Your task to perform on an android device: turn off notifications in google photos Image 0: 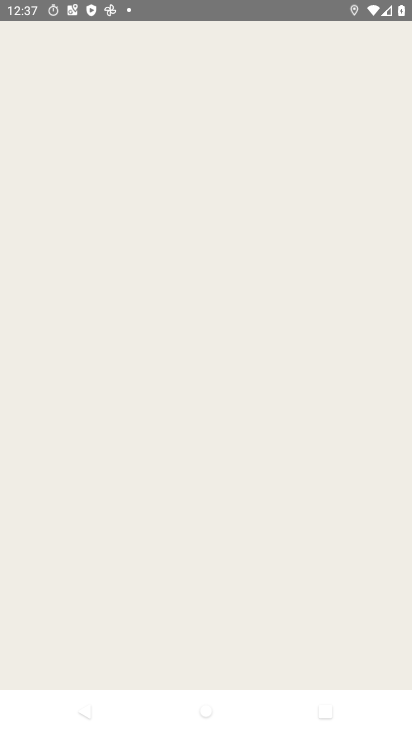
Step 0: press home button
Your task to perform on an android device: turn off notifications in google photos Image 1: 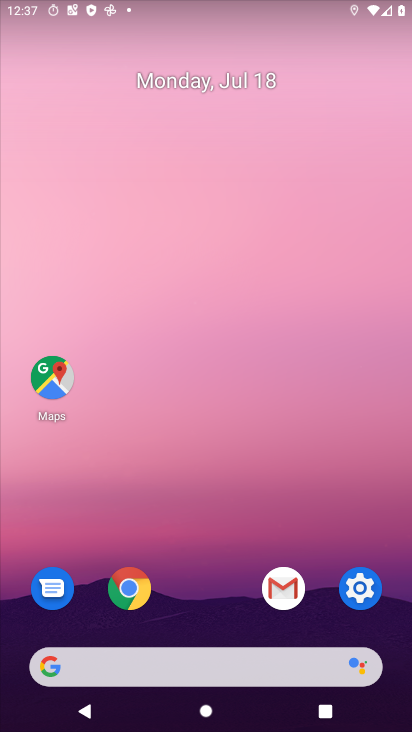
Step 1: drag from (268, 686) to (246, 148)
Your task to perform on an android device: turn off notifications in google photos Image 2: 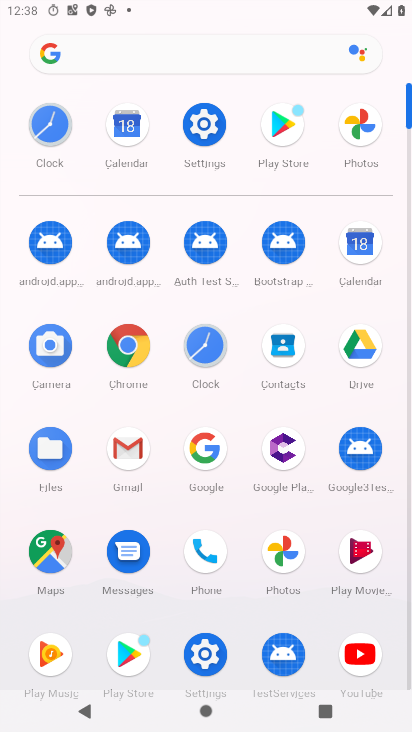
Step 2: click (277, 556)
Your task to perform on an android device: turn off notifications in google photos Image 3: 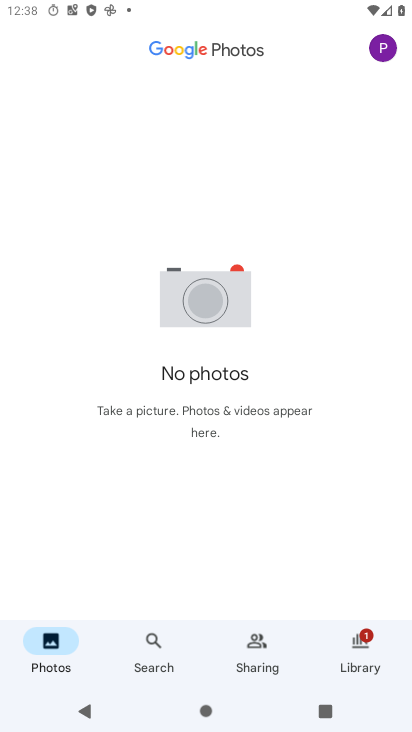
Step 3: click (382, 51)
Your task to perform on an android device: turn off notifications in google photos Image 4: 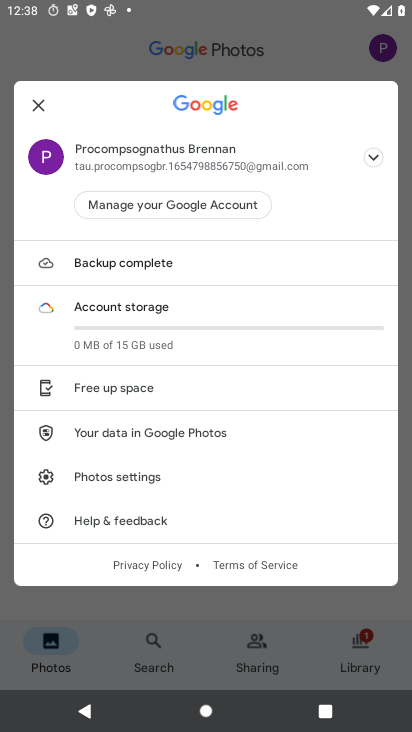
Step 4: click (117, 483)
Your task to perform on an android device: turn off notifications in google photos Image 5: 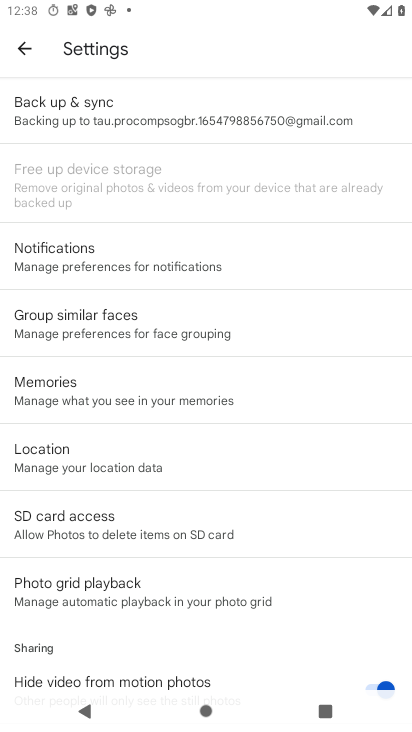
Step 5: click (116, 271)
Your task to perform on an android device: turn off notifications in google photos Image 6: 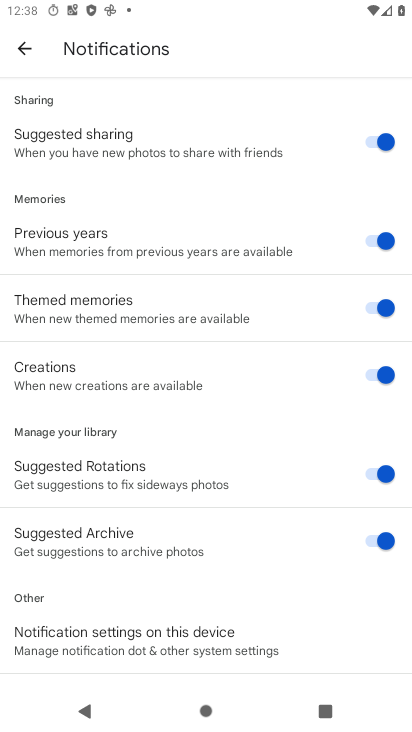
Step 6: click (85, 636)
Your task to perform on an android device: turn off notifications in google photos Image 7: 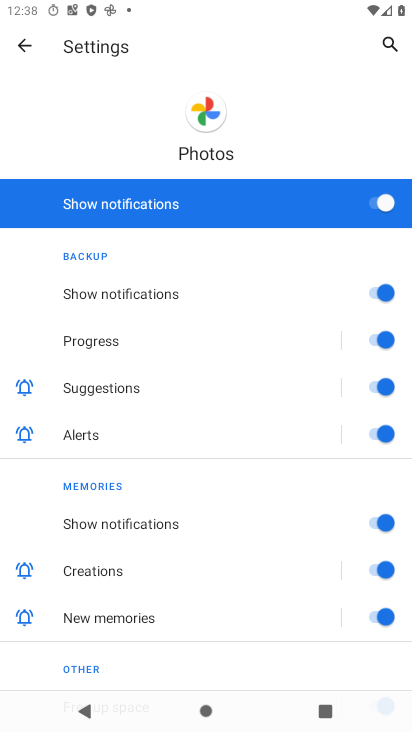
Step 7: click (353, 212)
Your task to perform on an android device: turn off notifications in google photos Image 8: 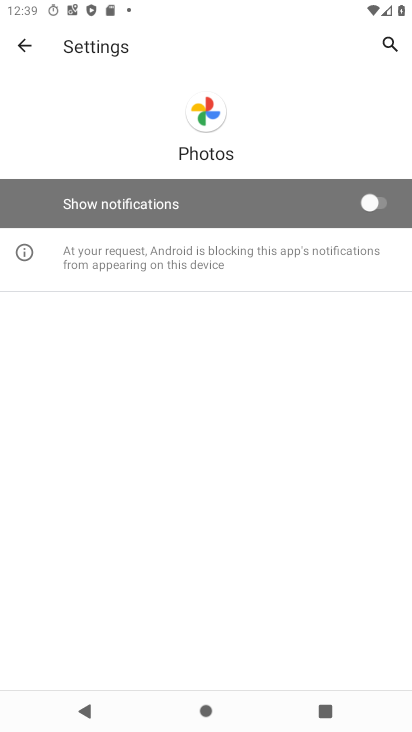
Step 8: task complete